Your task to perform on an android device: star an email in the gmail app Image 0: 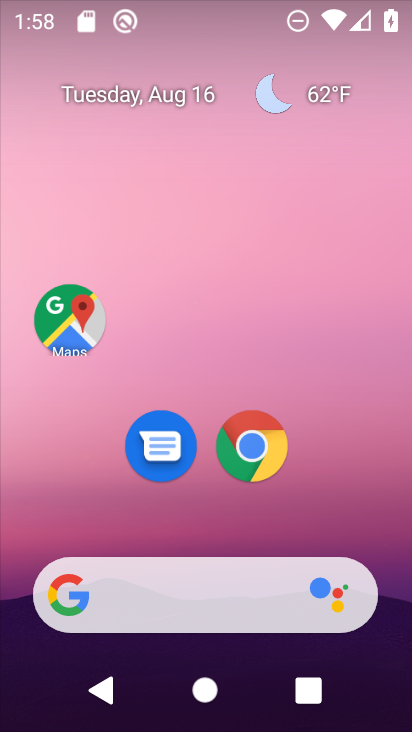
Step 0: drag from (200, 534) to (251, 33)
Your task to perform on an android device: star an email in the gmail app Image 1: 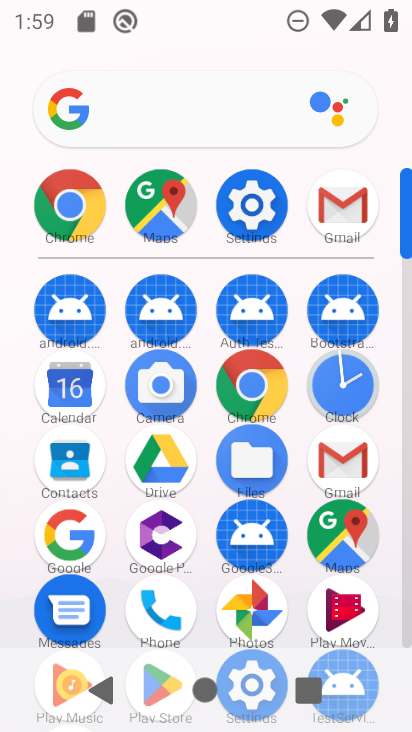
Step 1: click (337, 199)
Your task to perform on an android device: star an email in the gmail app Image 2: 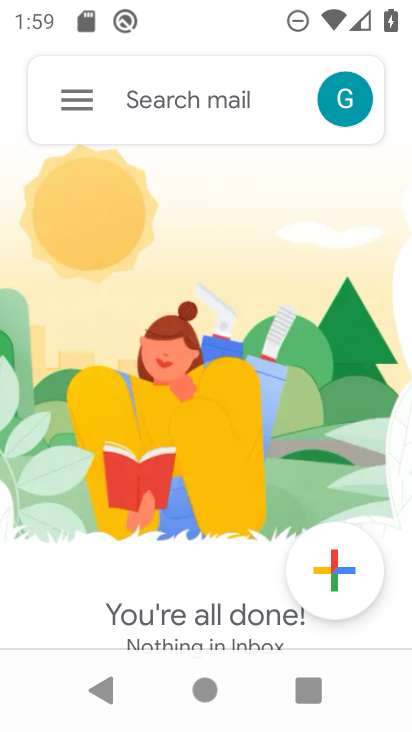
Step 2: task complete